Your task to perform on an android device: install app "Nova Launcher" Image 0: 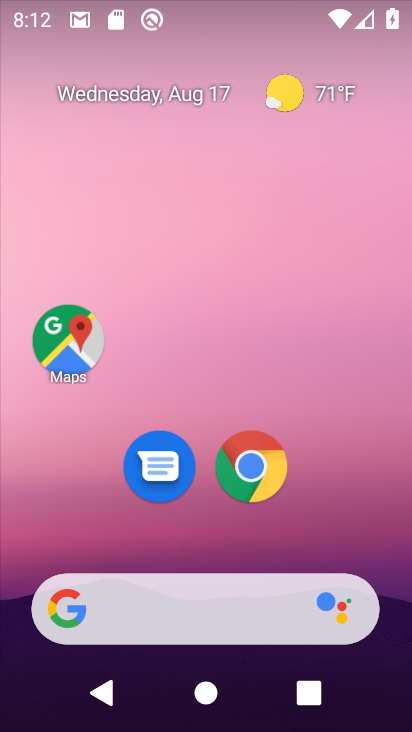
Step 0: drag from (209, 554) to (222, 2)
Your task to perform on an android device: install app "Nova Launcher" Image 1: 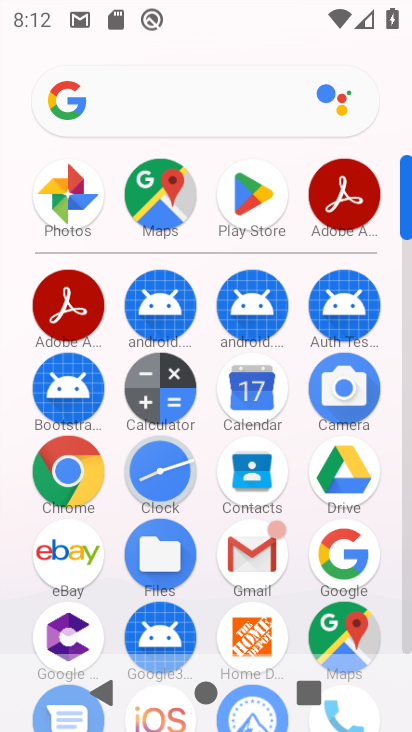
Step 1: click (263, 187)
Your task to perform on an android device: install app "Nova Launcher" Image 2: 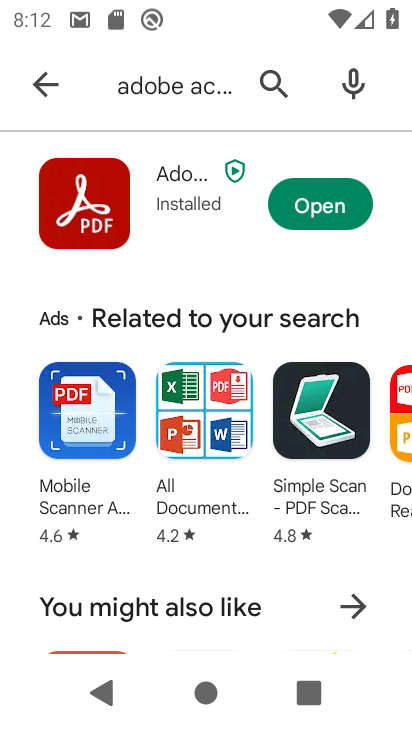
Step 2: click (210, 97)
Your task to perform on an android device: install app "Nova Launcher" Image 3: 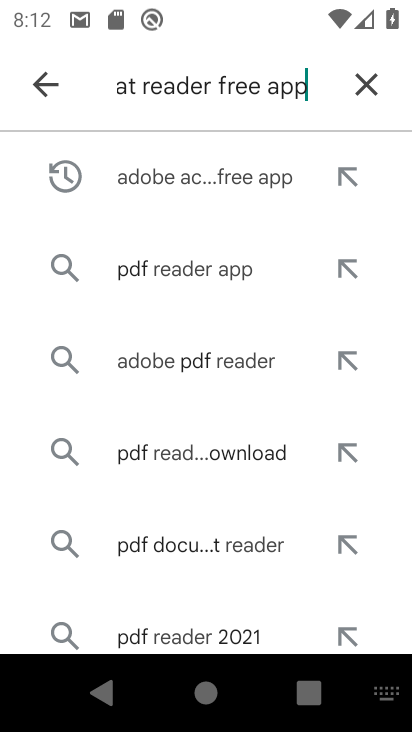
Step 3: click (368, 88)
Your task to perform on an android device: install app "Nova Launcher" Image 4: 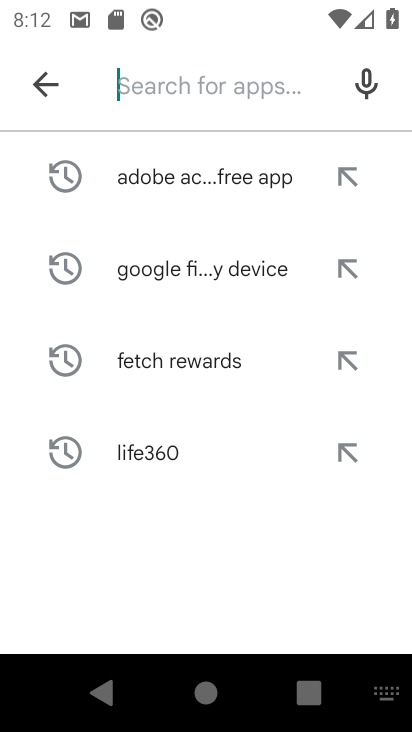
Step 4: type "Nova launcher"
Your task to perform on an android device: install app "Nova Launcher" Image 5: 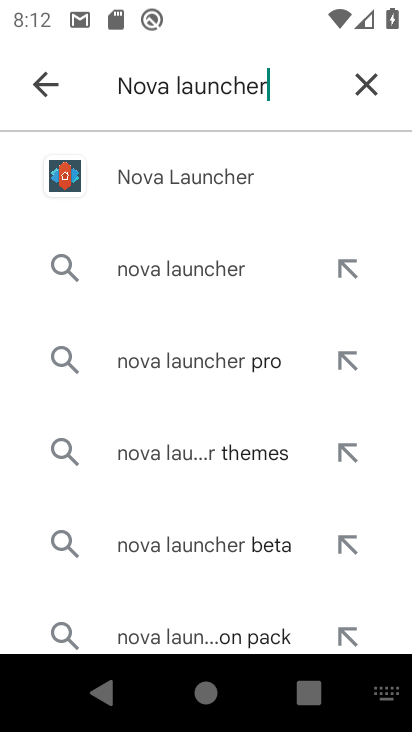
Step 5: click (185, 192)
Your task to perform on an android device: install app "Nova Launcher" Image 6: 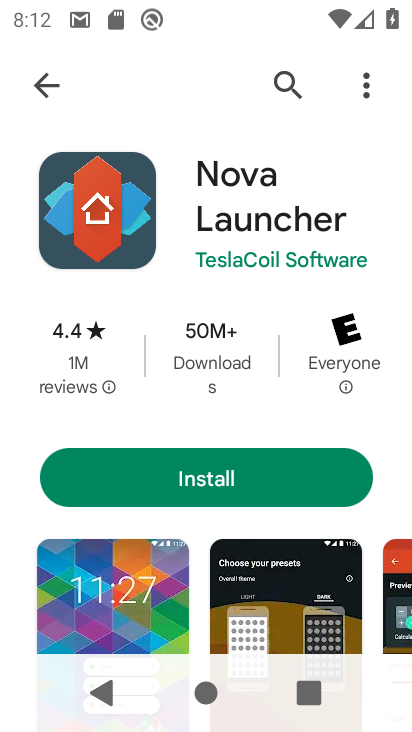
Step 6: click (230, 480)
Your task to perform on an android device: install app "Nova Launcher" Image 7: 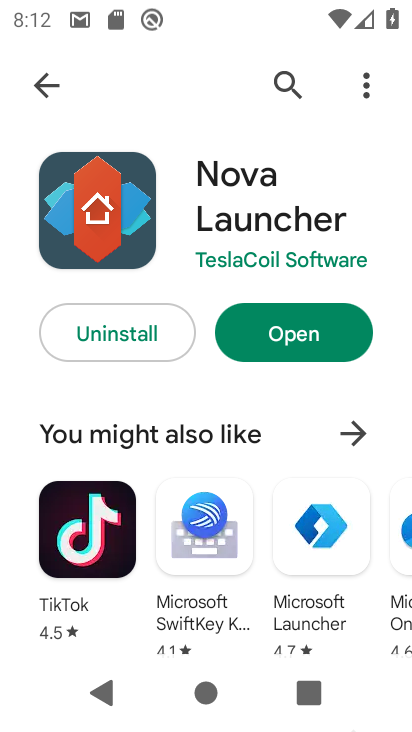
Step 7: task complete